Your task to perform on an android device: Open notification settings Image 0: 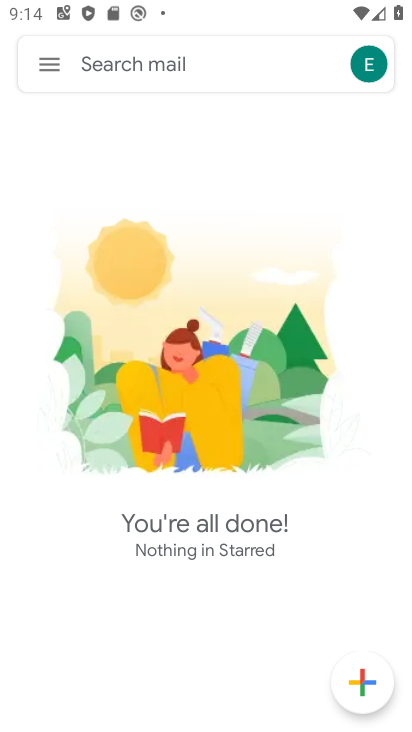
Step 0: press home button
Your task to perform on an android device: Open notification settings Image 1: 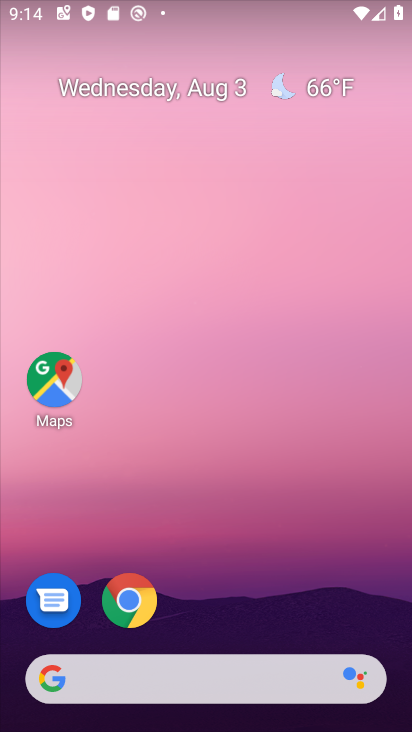
Step 1: drag from (229, 627) to (194, 7)
Your task to perform on an android device: Open notification settings Image 2: 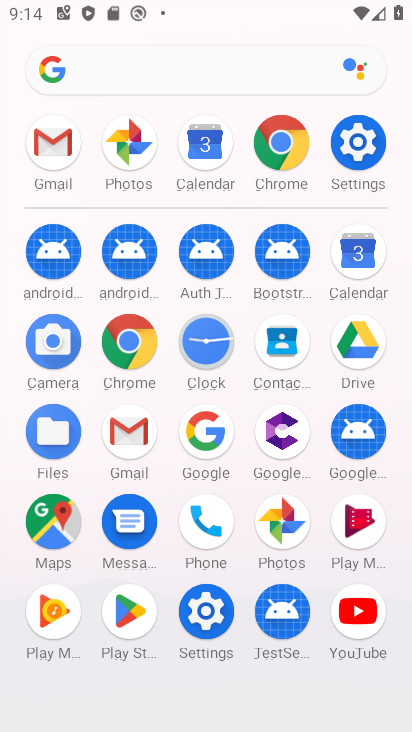
Step 2: click (202, 636)
Your task to perform on an android device: Open notification settings Image 3: 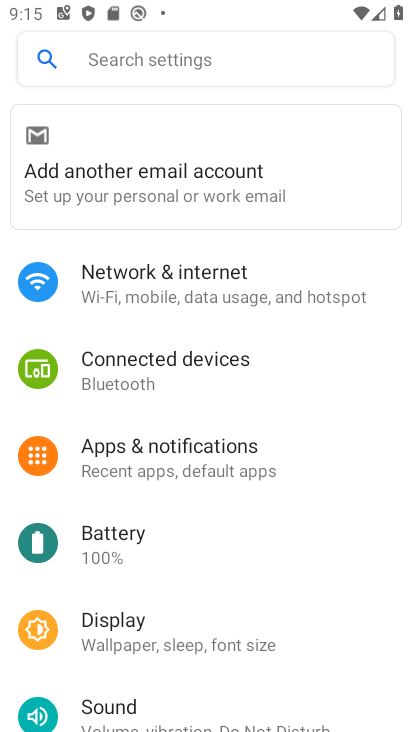
Step 3: click (205, 475)
Your task to perform on an android device: Open notification settings Image 4: 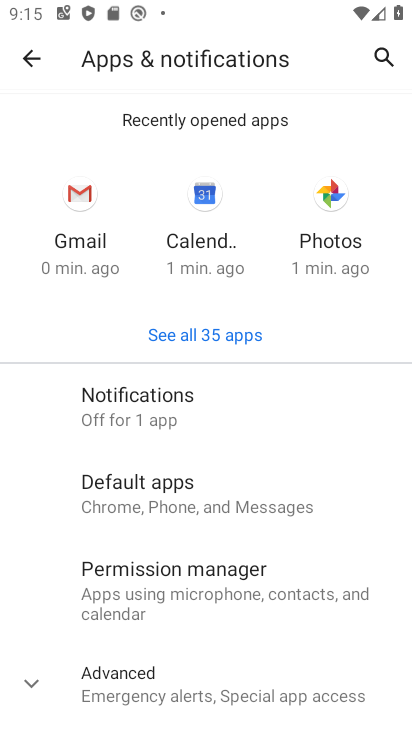
Step 4: click (168, 425)
Your task to perform on an android device: Open notification settings Image 5: 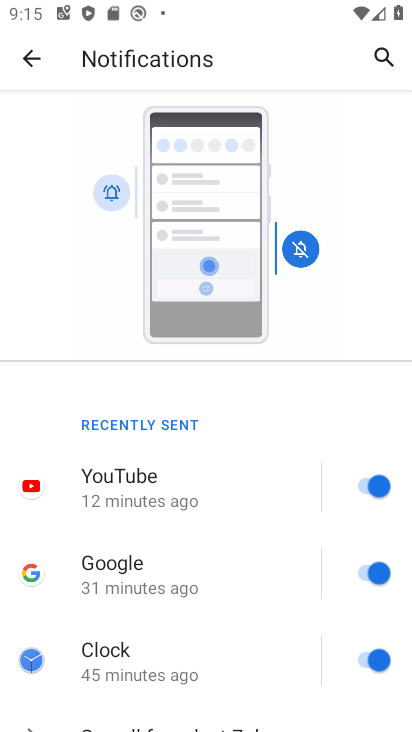
Step 5: task complete